Your task to perform on an android device: choose inbox layout in the gmail app Image 0: 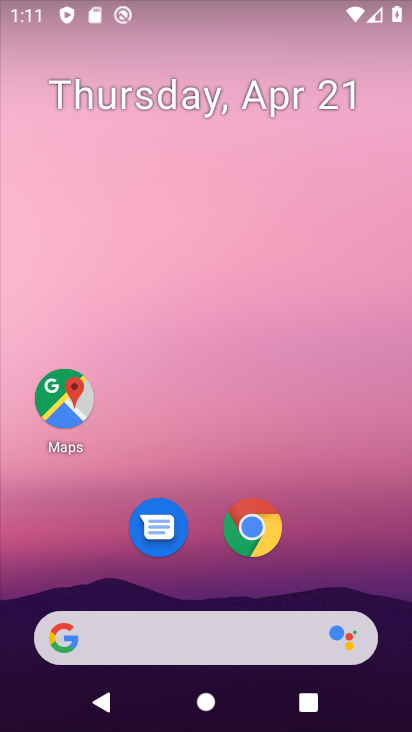
Step 0: drag from (358, 562) to (329, 145)
Your task to perform on an android device: choose inbox layout in the gmail app Image 1: 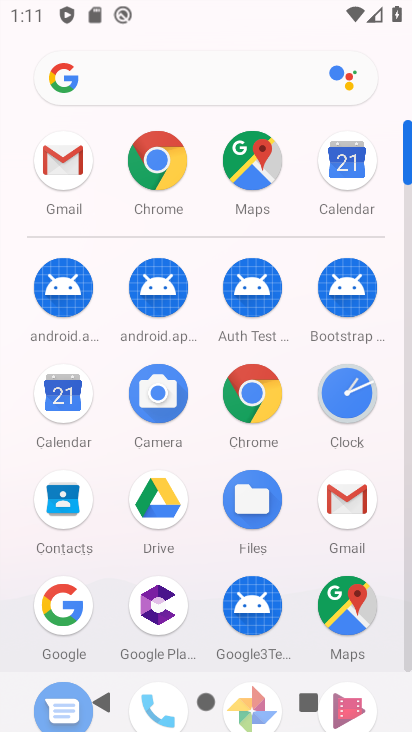
Step 1: click (326, 503)
Your task to perform on an android device: choose inbox layout in the gmail app Image 2: 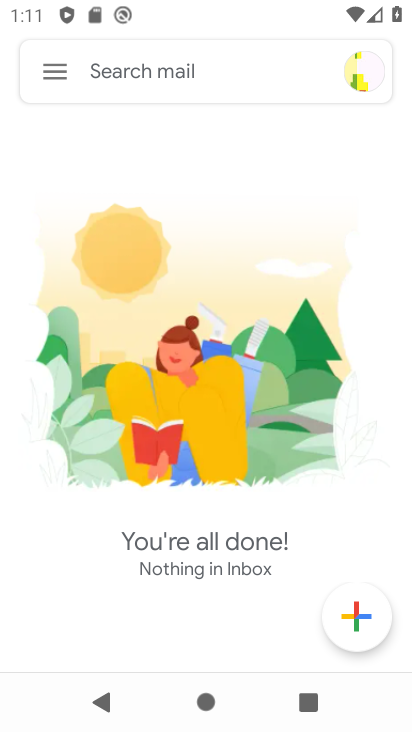
Step 2: click (57, 72)
Your task to perform on an android device: choose inbox layout in the gmail app Image 3: 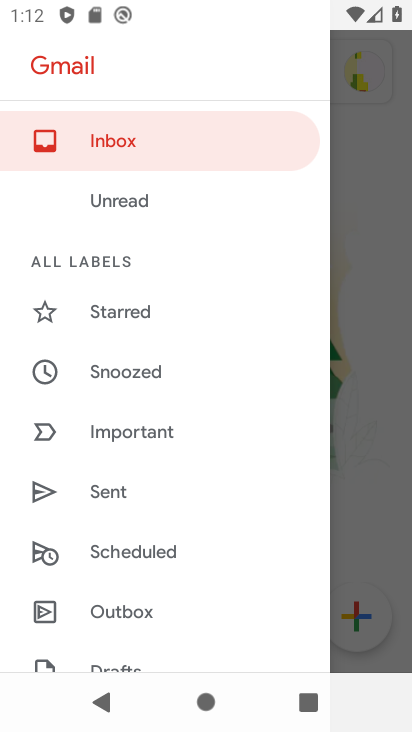
Step 3: drag from (231, 572) to (254, 299)
Your task to perform on an android device: choose inbox layout in the gmail app Image 4: 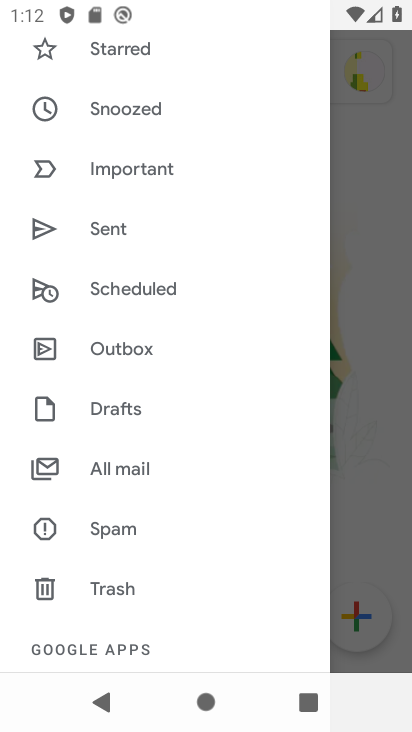
Step 4: drag from (245, 578) to (245, 363)
Your task to perform on an android device: choose inbox layout in the gmail app Image 5: 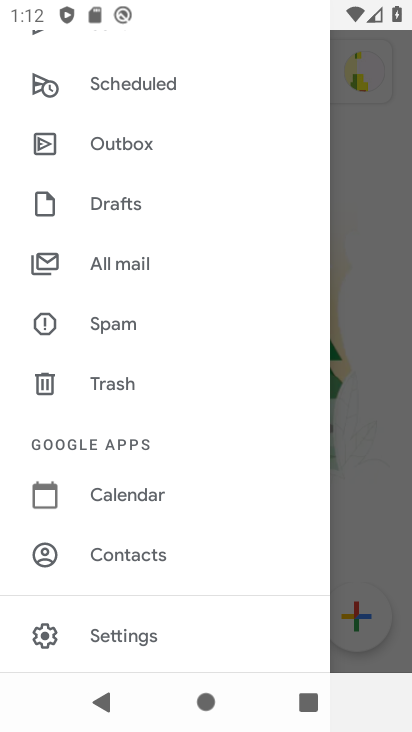
Step 5: drag from (219, 610) to (237, 385)
Your task to perform on an android device: choose inbox layout in the gmail app Image 6: 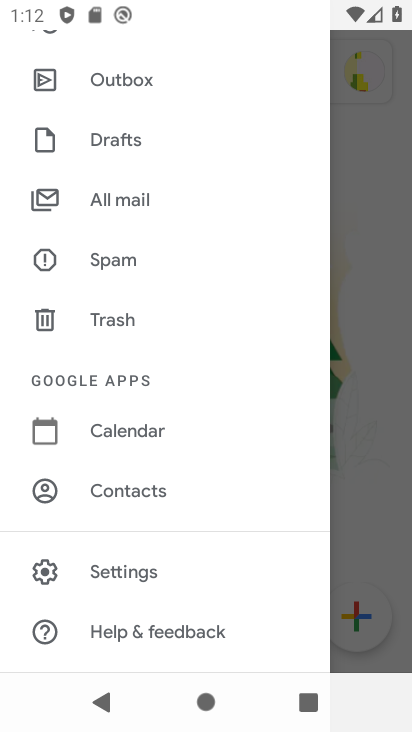
Step 6: click (153, 573)
Your task to perform on an android device: choose inbox layout in the gmail app Image 7: 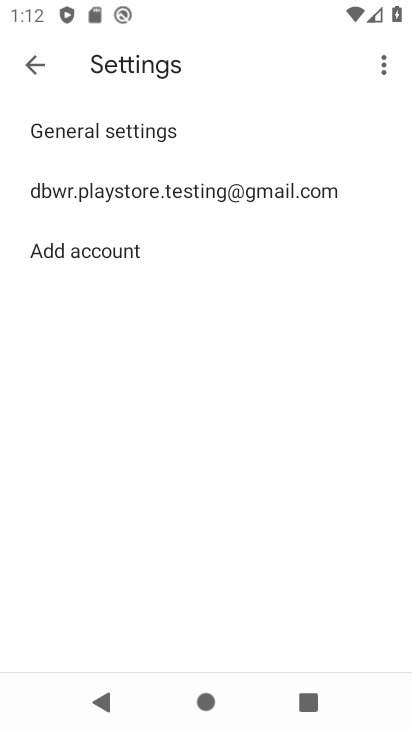
Step 7: click (277, 198)
Your task to perform on an android device: choose inbox layout in the gmail app Image 8: 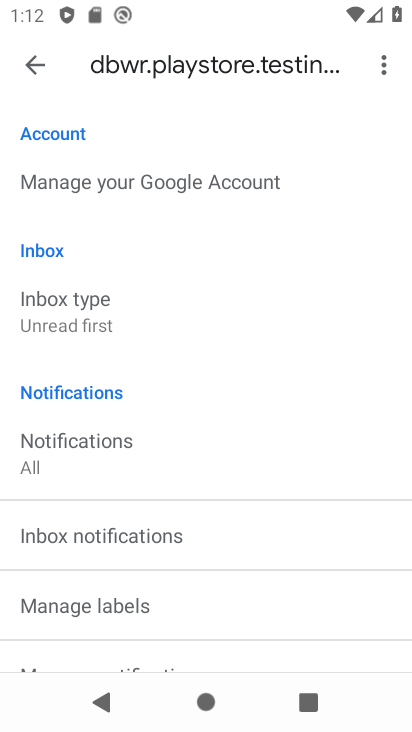
Step 8: drag from (327, 572) to (332, 417)
Your task to perform on an android device: choose inbox layout in the gmail app Image 9: 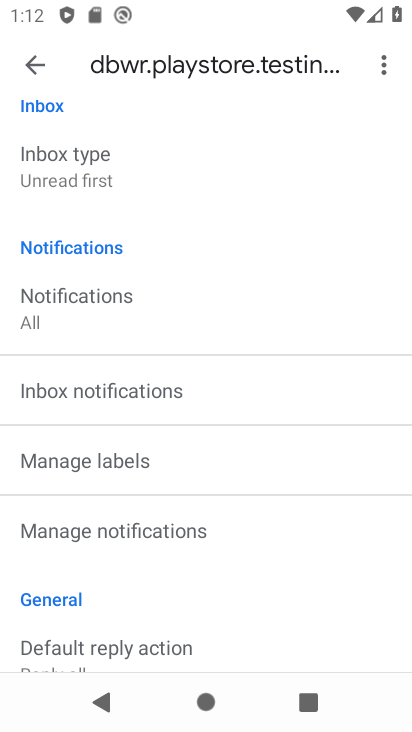
Step 9: drag from (303, 578) to (301, 423)
Your task to perform on an android device: choose inbox layout in the gmail app Image 10: 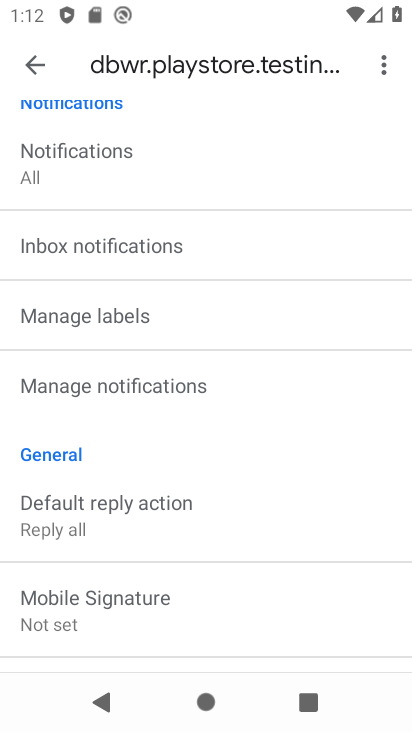
Step 10: drag from (282, 597) to (288, 436)
Your task to perform on an android device: choose inbox layout in the gmail app Image 11: 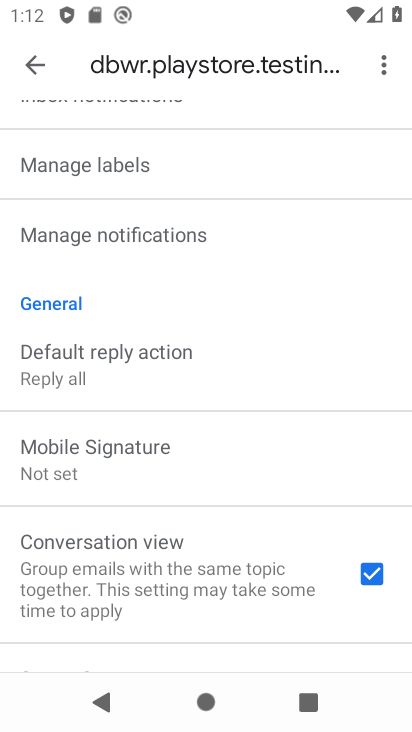
Step 11: drag from (286, 621) to (302, 442)
Your task to perform on an android device: choose inbox layout in the gmail app Image 12: 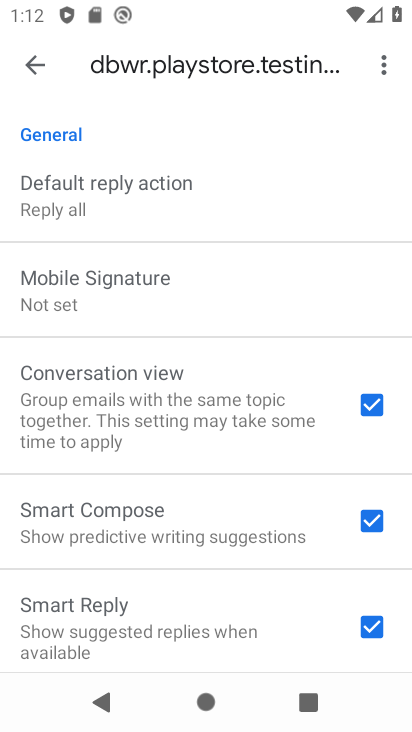
Step 12: drag from (286, 602) to (287, 463)
Your task to perform on an android device: choose inbox layout in the gmail app Image 13: 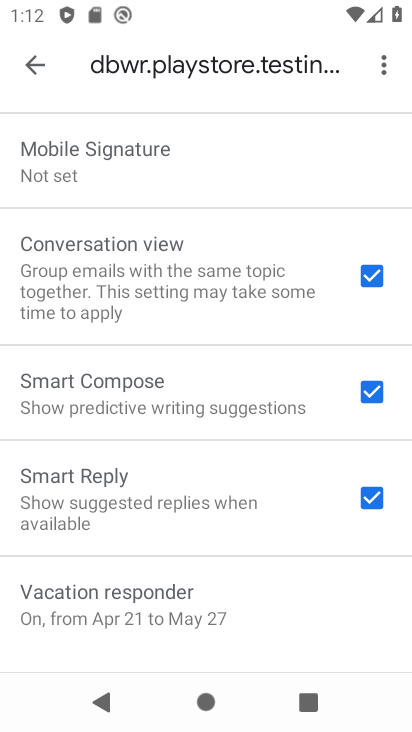
Step 13: drag from (314, 565) to (326, 395)
Your task to perform on an android device: choose inbox layout in the gmail app Image 14: 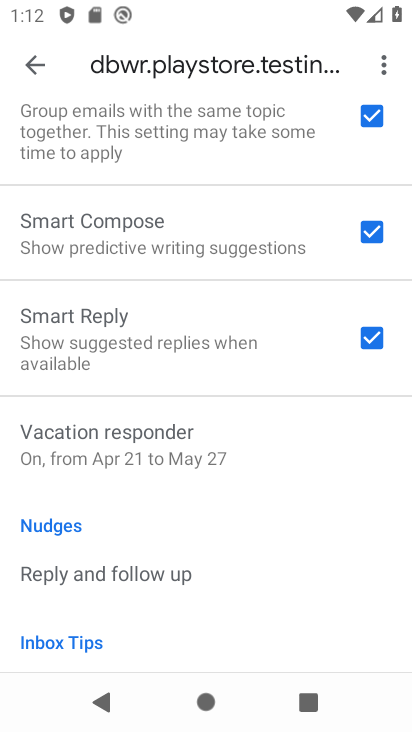
Step 14: drag from (301, 547) to (306, 422)
Your task to perform on an android device: choose inbox layout in the gmail app Image 15: 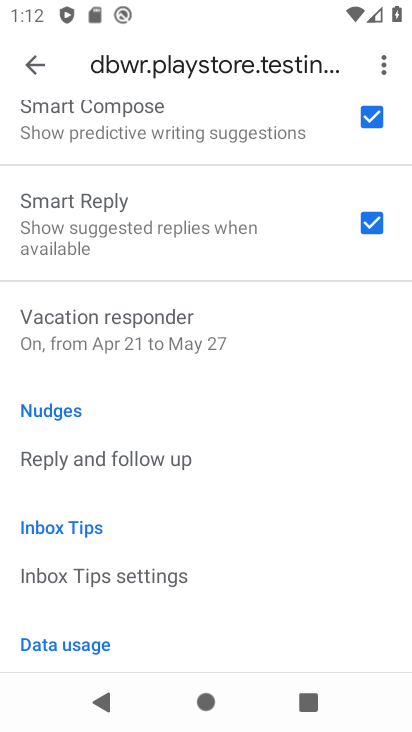
Step 15: drag from (279, 595) to (300, 426)
Your task to perform on an android device: choose inbox layout in the gmail app Image 16: 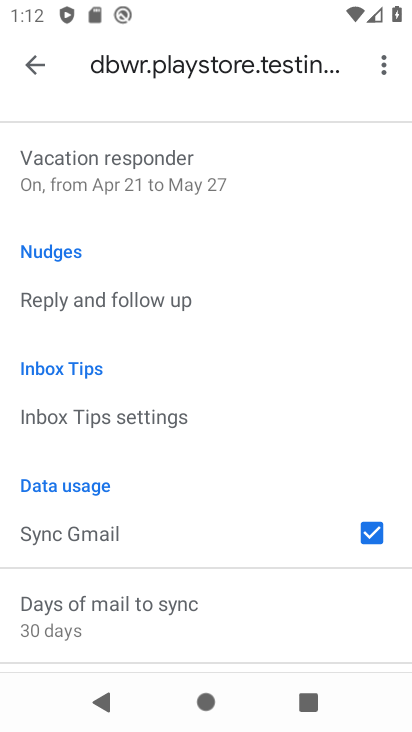
Step 16: drag from (293, 601) to (289, 414)
Your task to perform on an android device: choose inbox layout in the gmail app Image 17: 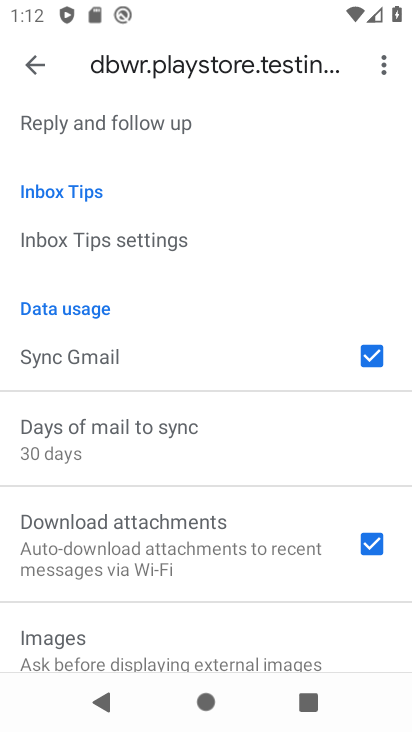
Step 17: drag from (308, 279) to (296, 484)
Your task to perform on an android device: choose inbox layout in the gmail app Image 18: 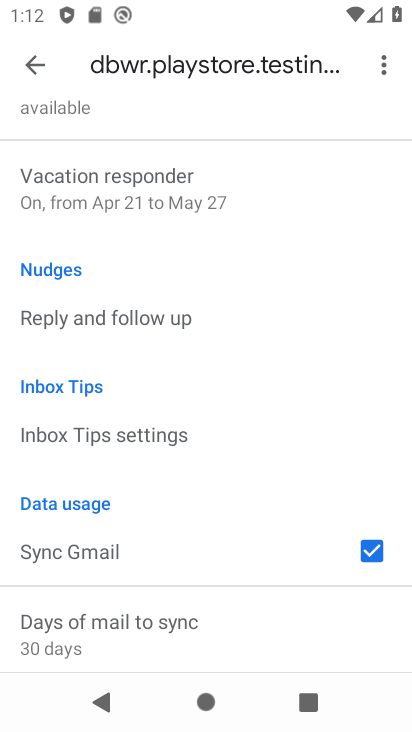
Step 18: drag from (285, 239) to (273, 444)
Your task to perform on an android device: choose inbox layout in the gmail app Image 19: 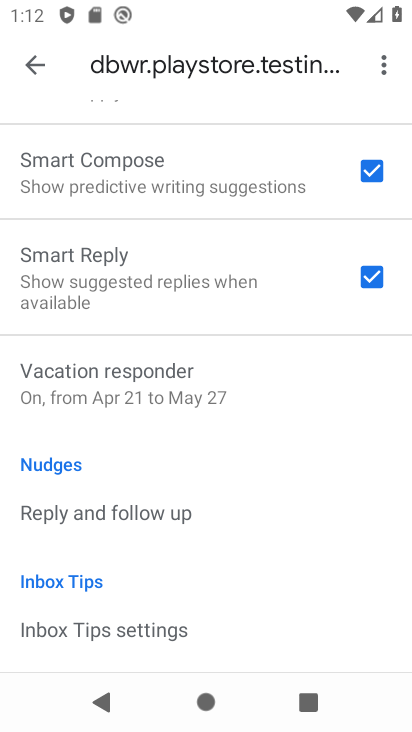
Step 19: drag from (318, 172) to (305, 381)
Your task to perform on an android device: choose inbox layout in the gmail app Image 20: 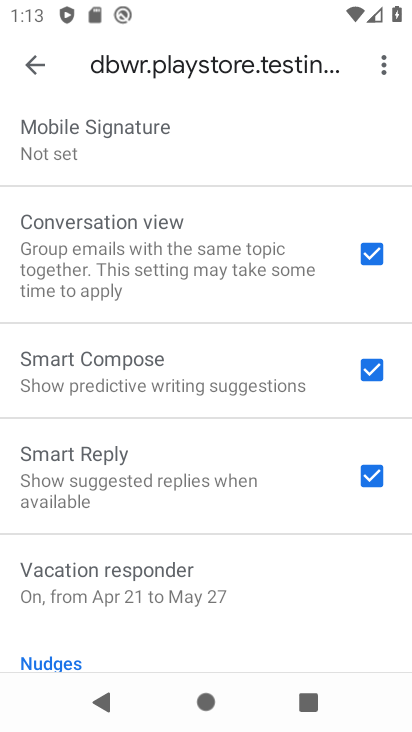
Step 20: drag from (298, 189) to (276, 398)
Your task to perform on an android device: choose inbox layout in the gmail app Image 21: 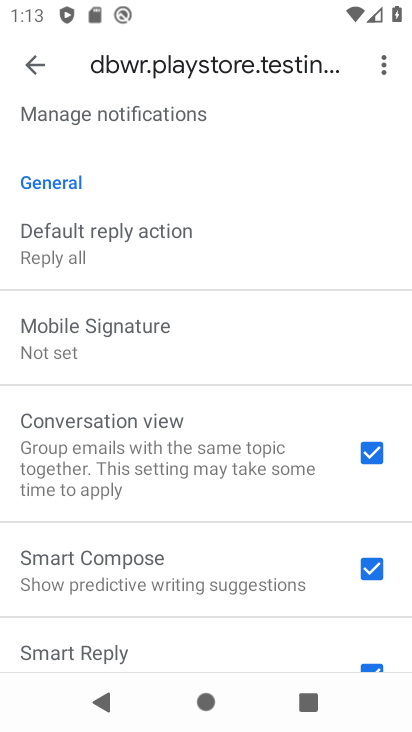
Step 21: drag from (274, 210) to (274, 400)
Your task to perform on an android device: choose inbox layout in the gmail app Image 22: 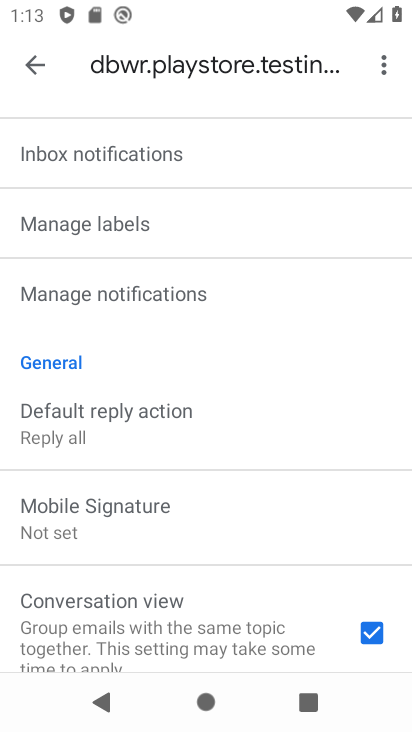
Step 22: drag from (259, 205) to (265, 409)
Your task to perform on an android device: choose inbox layout in the gmail app Image 23: 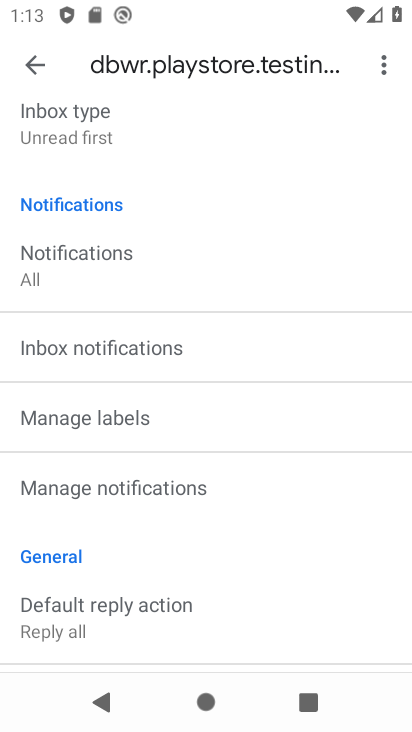
Step 23: drag from (253, 184) to (248, 369)
Your task to perform on an android device: choose inbox layout in the gmail app Image 24: 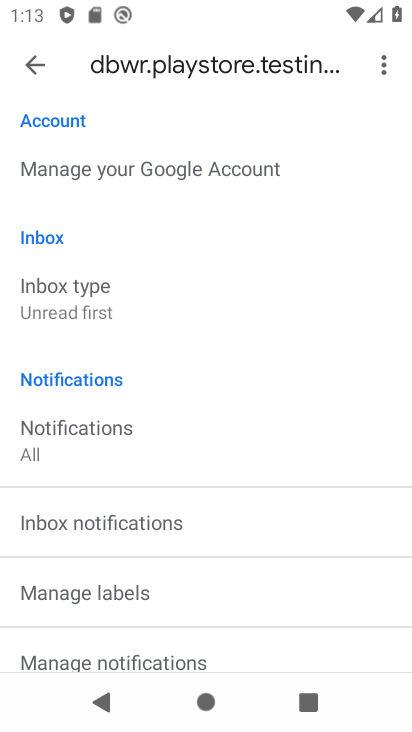
Step 24: click (57, 299)
Your task to perform on an android device: choose inbox layout in the gmail app Image 25: 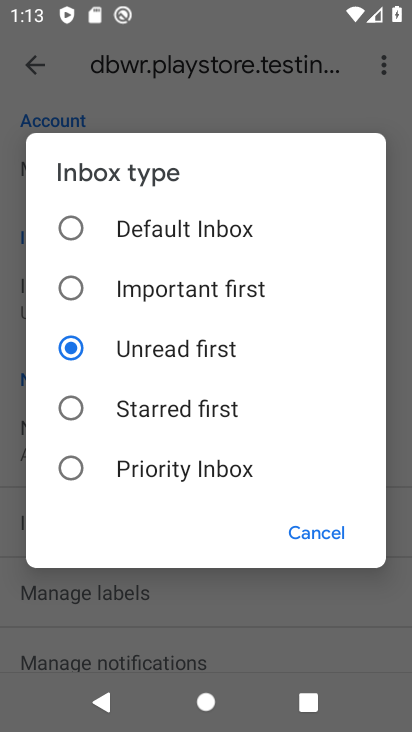
Step 25: click (72, 287)
Your task to perform on an android device: choose inbox layout in the gmail app Image 26: 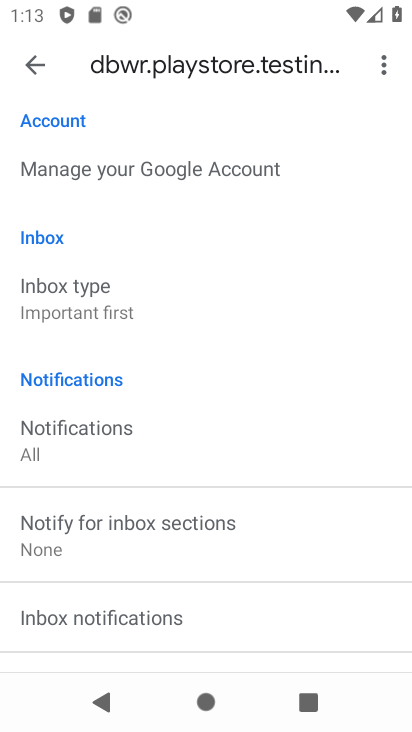
Step 26: task complete